Your task to perform on an android device: set default search engine in the chrome app Image 0: 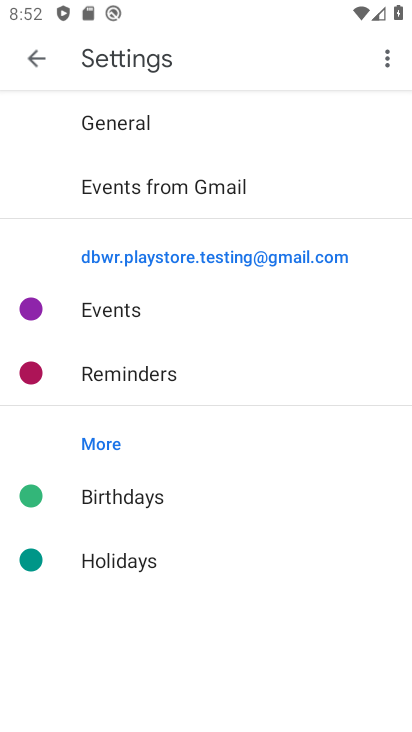
Step 0: press home button
Your task to perform on an android device: set default search engine in the chrome app Image 1: 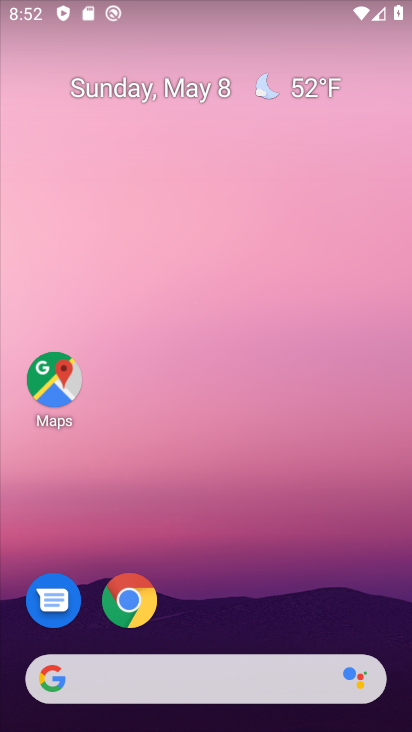
Step 1: click (134, 613)
Your task to perform on an android device: set default search engine in the chrome app Image 2: 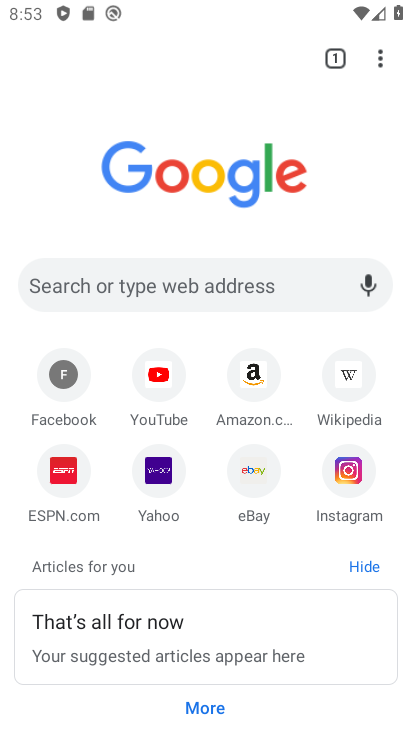
Step 2: drag from (380, 60) to (246, 491)
Your task to perform on an android device: set default search engine in the chrome app Image 3: 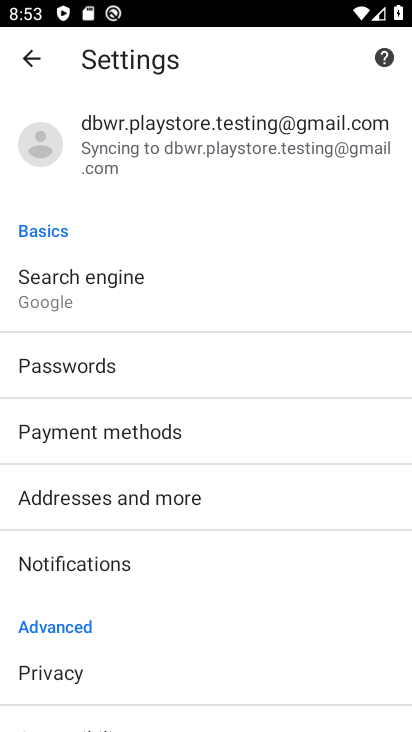
Step 3: click (137, 296)
Your task to perform on an android device: set default search engine in the chrome app Image 4: 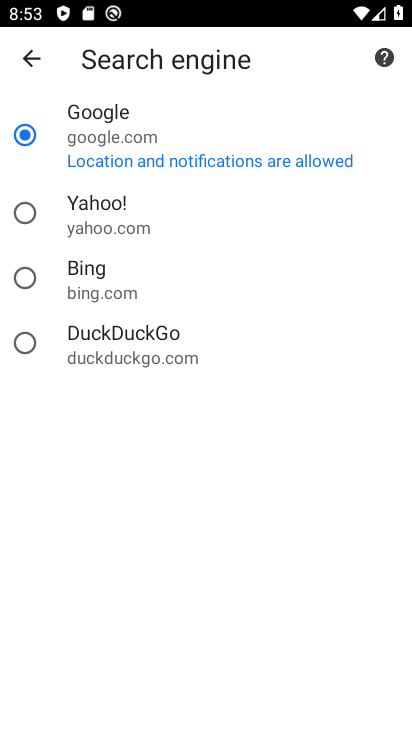
Step 4: click (149, 204)
Your task to perform on an android device: set default search engine in the chrome app Image 5: 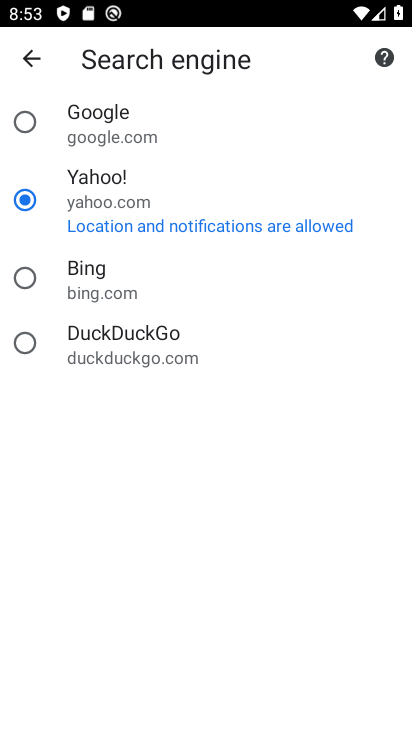
Step 5: task complete